Your task to perform on an android device: What's the weather today? Image 0: 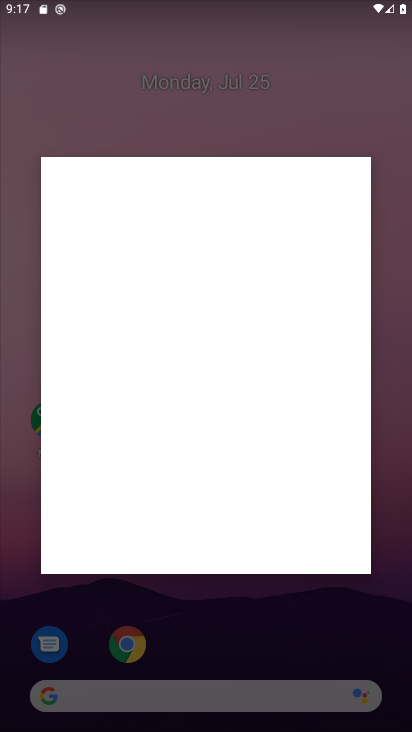
Step 0: press home button
Your task to perform on an android device: What's the weather today? Image 1: 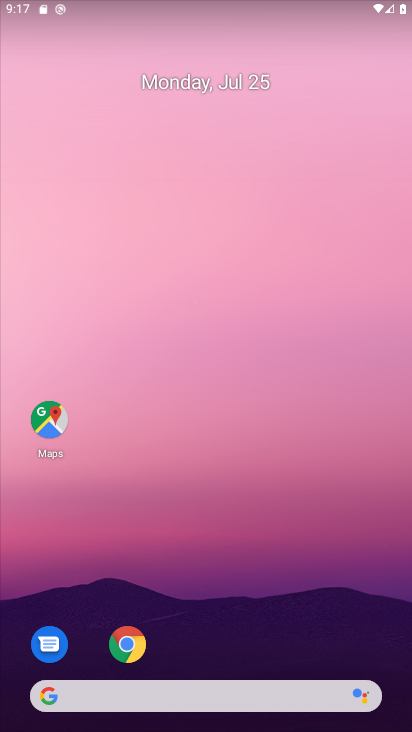
Step 1: press home button
Your task to perform on an android device: What's the weather today? Image 2: 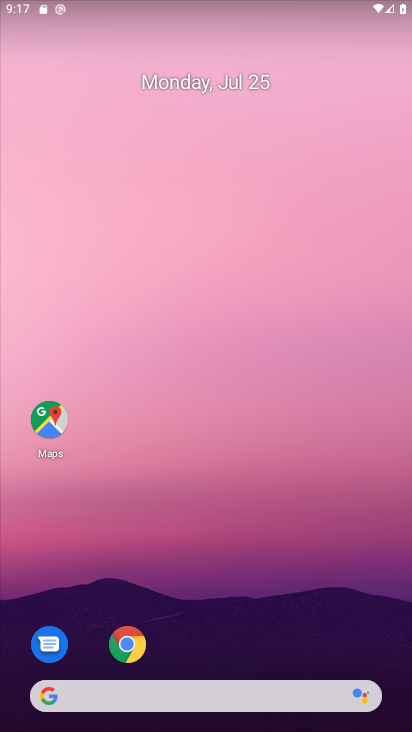
Step 2: click (48, 411)
Your task to perform on an android device: What's the weather today? Image 3: 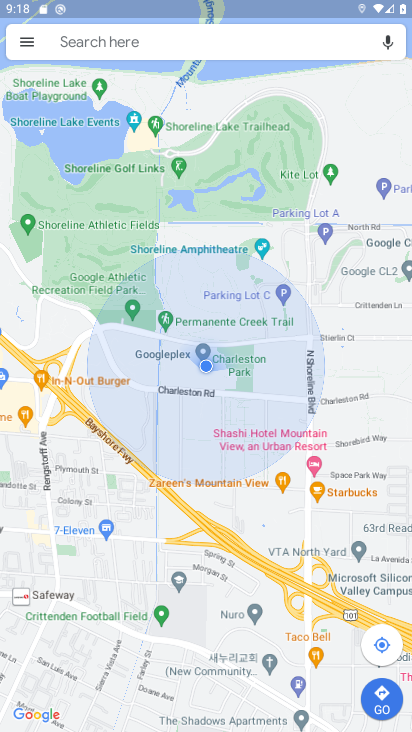
Step 3: task complete